Your task to perform on an android device: turn off wifi Image 0: 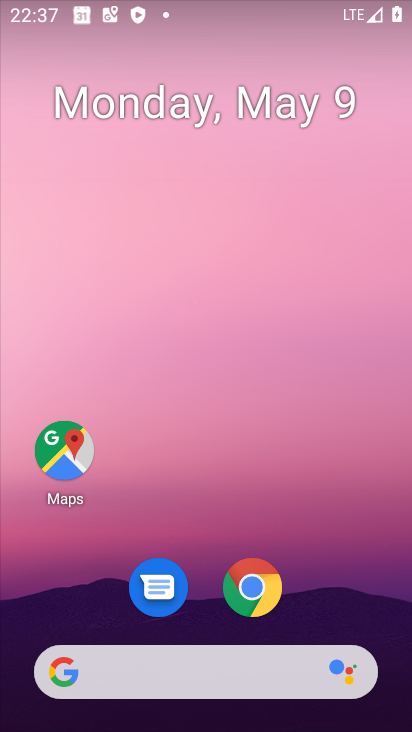
Step 0: drag from (182, 9) to (177, 421)
Your task to perform on an android device: turn off wifi Image 1: 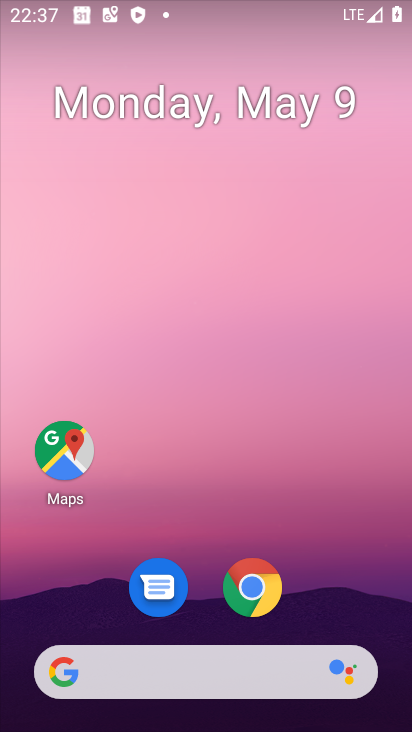
Step 1: task complete